Your task to perform on an android device: Go to Android settings Image 0: 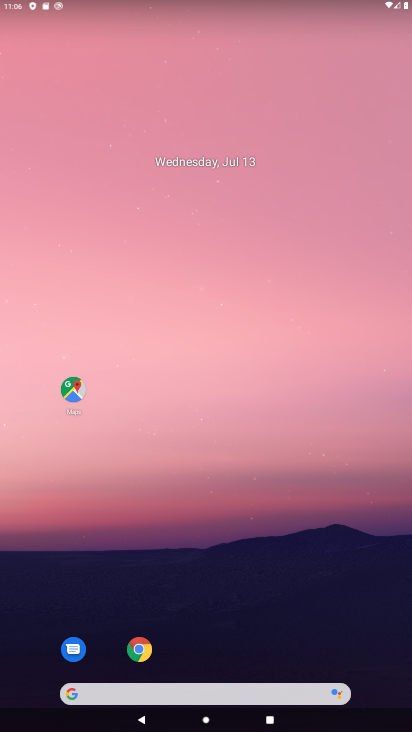
Step 0: drag from (210, 667) to (234, 89)
Your task to perform on an android device: Go to Android settings Image 1: 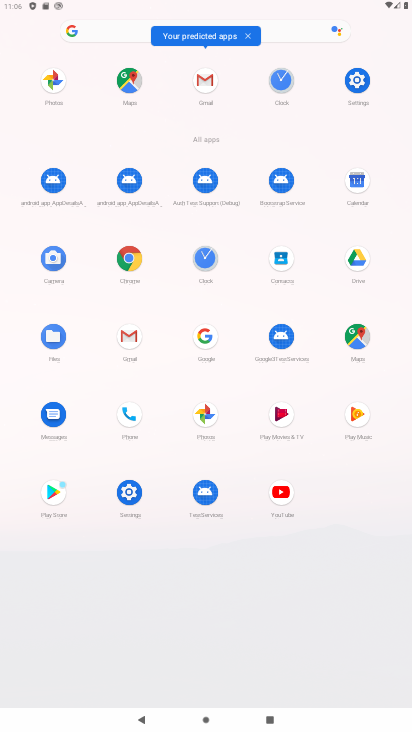
Step 1: click (134, 497)
Your task to perform on an android device: Go to Android settings Image 2: 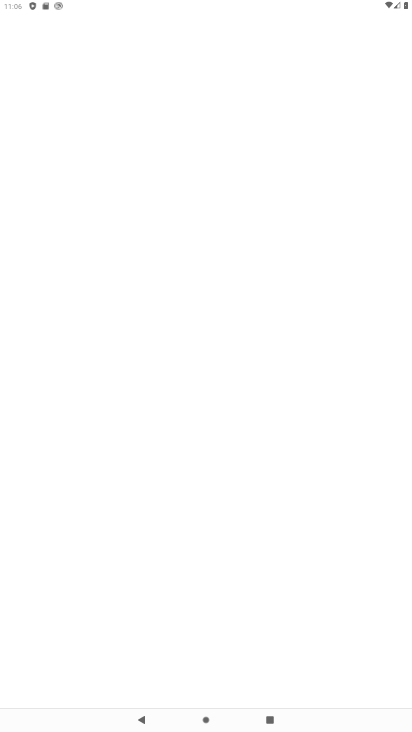
Step 2: drag from (243, 527) to (241, 246)
Your task to perform on an android device: Go to Android settings Image 3: 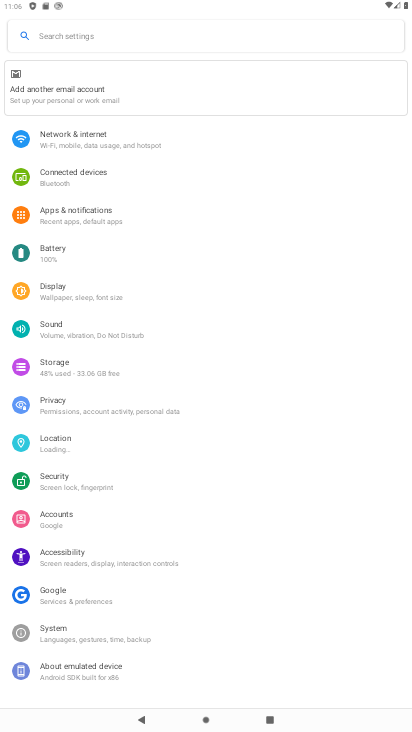
Step 3: drag from (114, 631) to (105, 421)
Your task to perform on an android device: Go to Android settings Image 4: 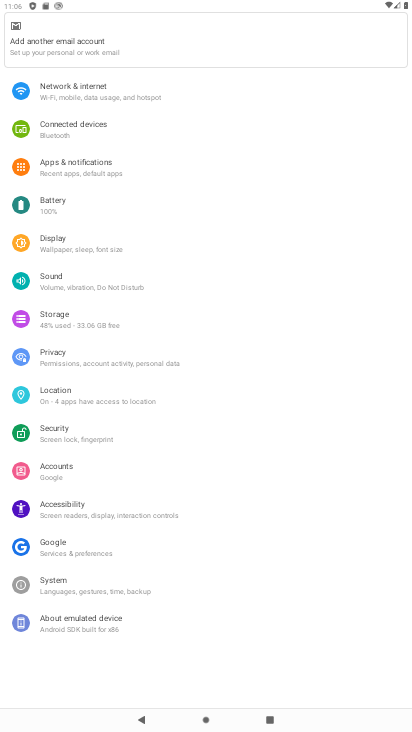
Step 4: click (113, 628)
Your task to perform on an android device: Go to Android settings Image 5: 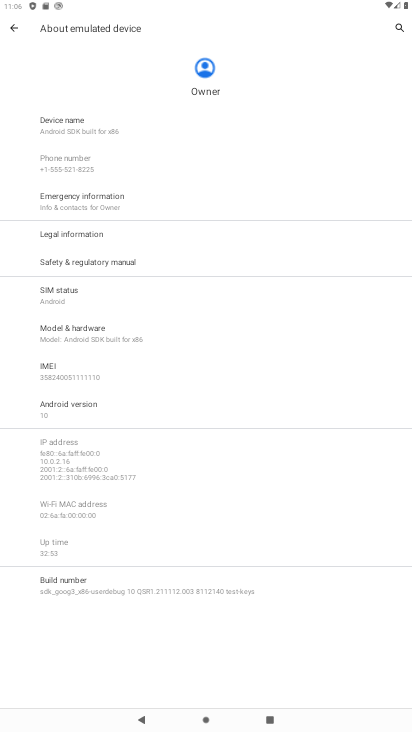
Step 5: click (95, 416)
Your task to perform on an android device: Go to Android settings Image 6: 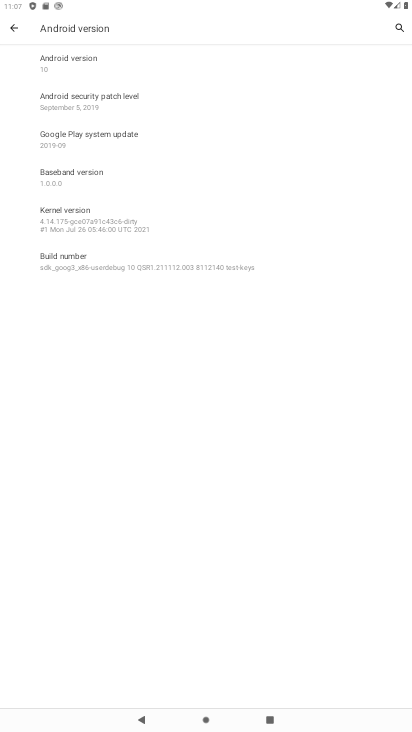
Step 6: task complete